Your task to perform on an android device: show emergency info Image 0: 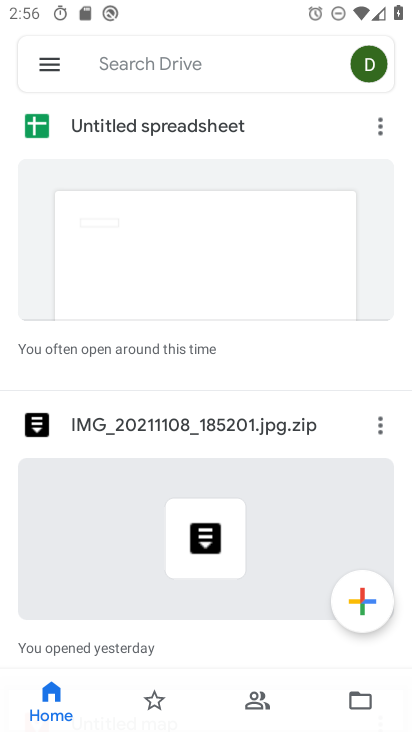
Step 0: press home button
Your task to perform on an android device: show emergency info Image 1: 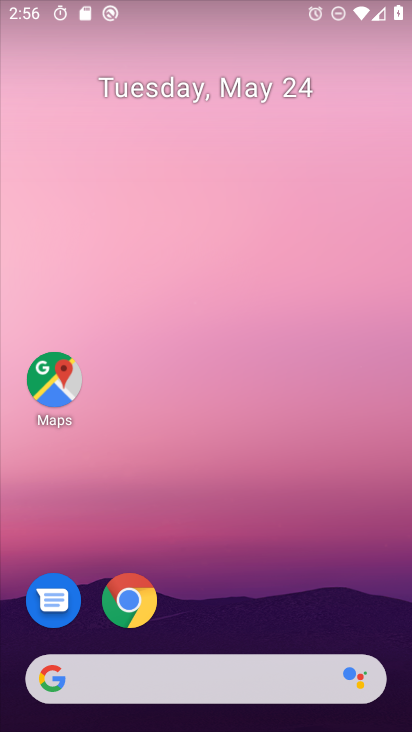
Step 1: drag from (276, 576) to (264, 121)
Your task to perform on an android device: show emergency info Image 2: 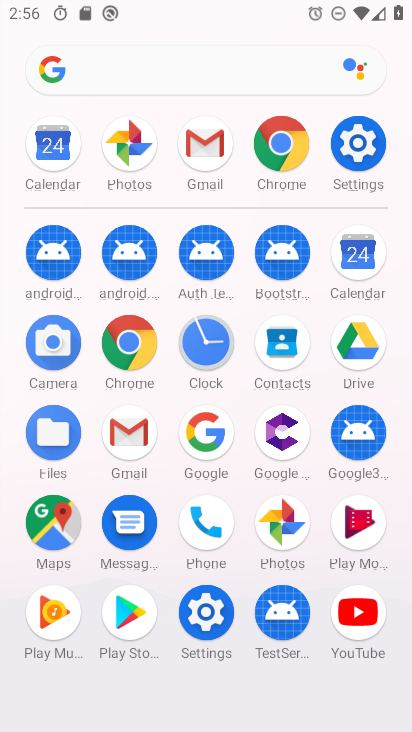
Step 2: click (367, 151)
Your task to perform on an android device: show emergency info Image 3: 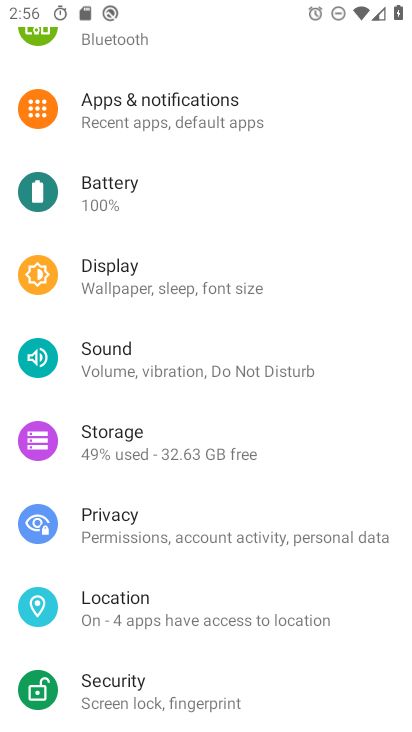
Step 3: drag from (203, 599) to (268, 115)
Your task to perform on an android device: show emergency info Image 4: 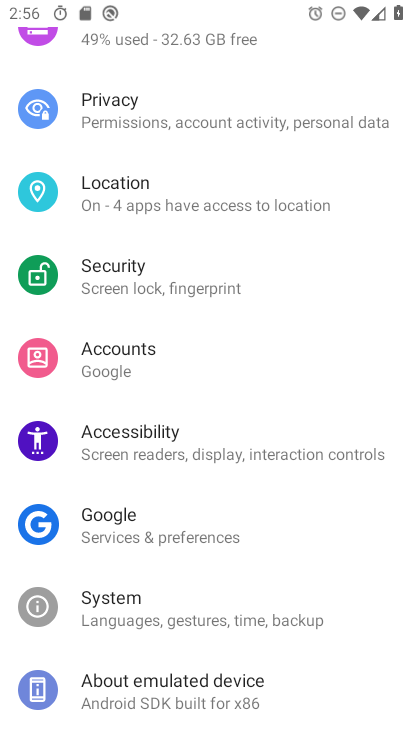
Step 4: drag from (188, 606) to (259, 191)
Your task to perform on an android device: show emergency info Image 5: 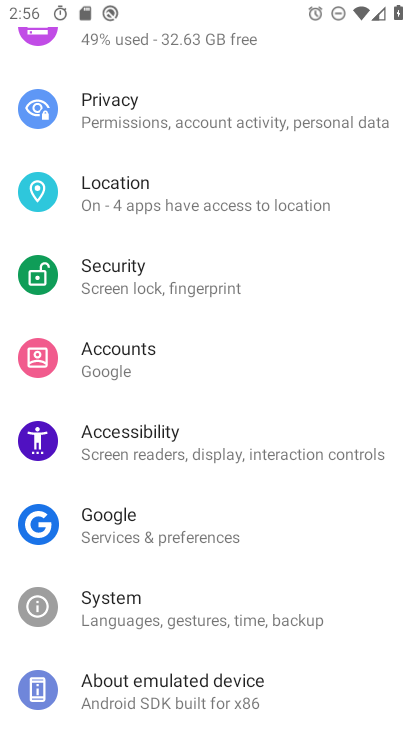
Step 5: click (169, 702)
Your task to perform on an android device: show emergency info Image 6: 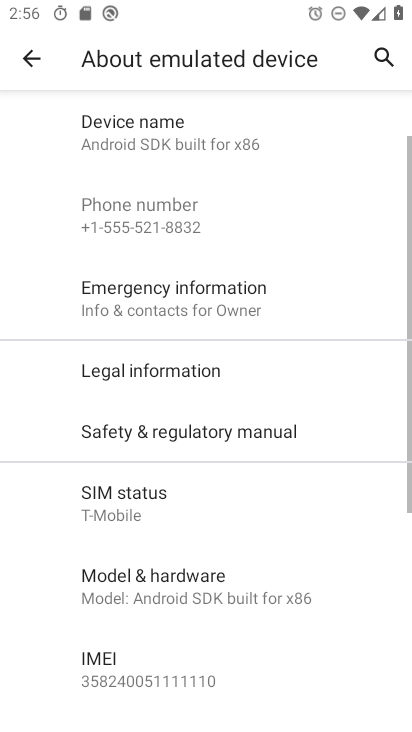
Step 6: click (175, 291)
Your task to perform on an android device: show emergency info Image 7: 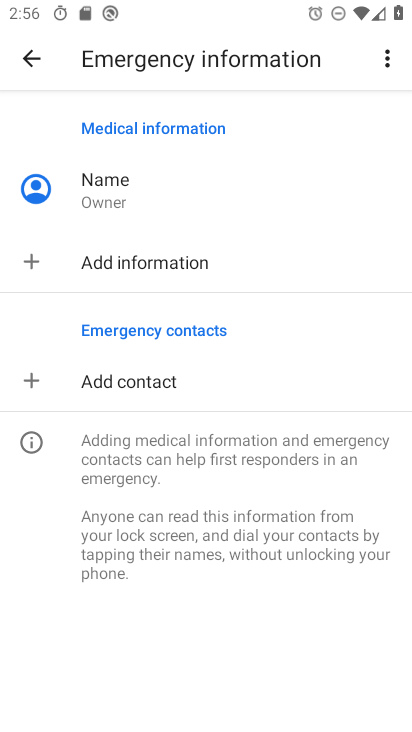
Step 7: task complete